Your task to perform on an android device: Go to privacy settings Image 0: 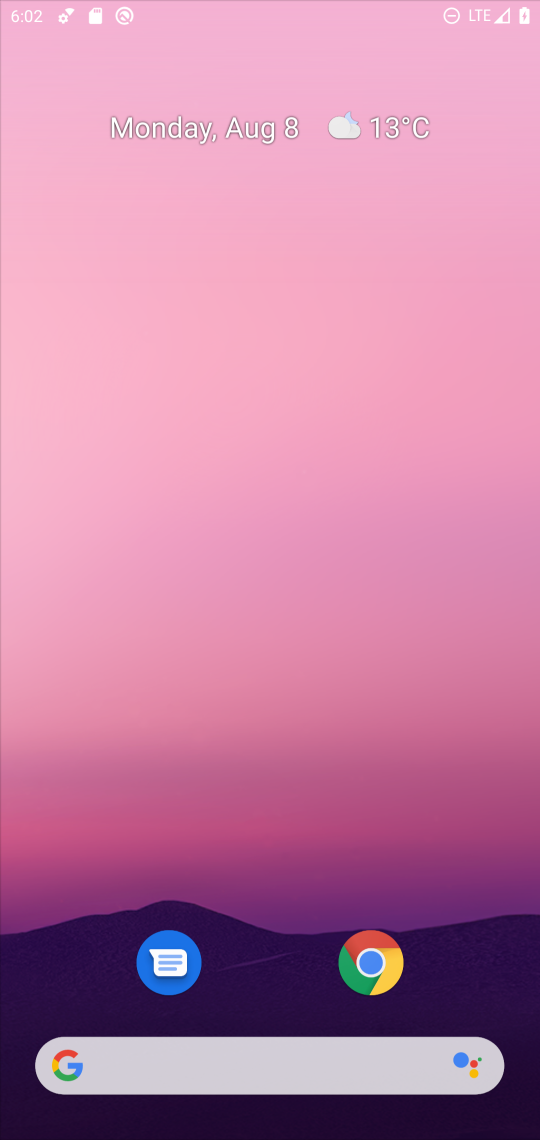
Step 0: press home button
Your task to perform on an android device: Go to privacy settings Image 1: 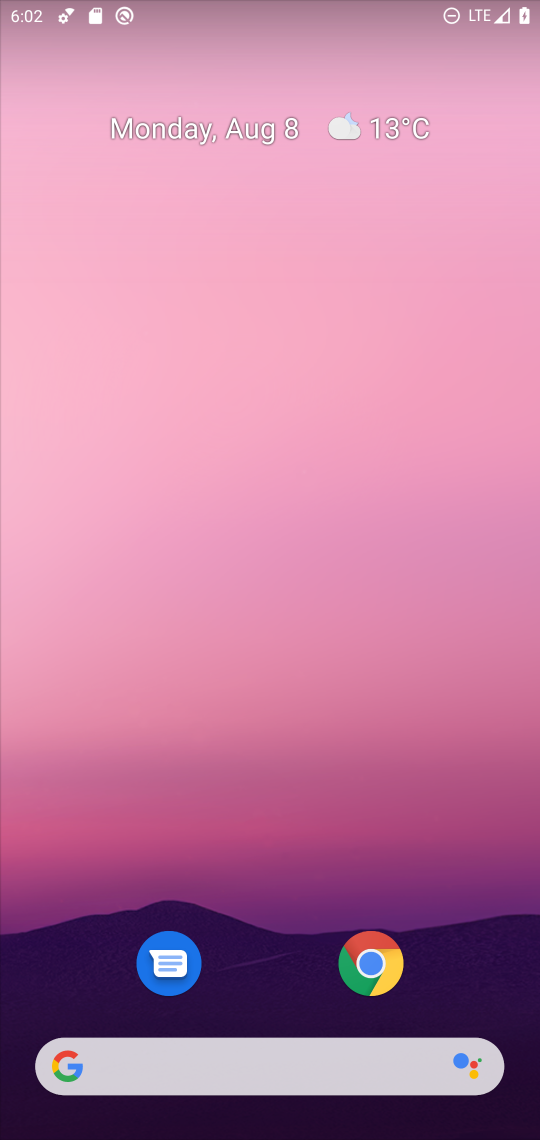
Step 1: drag from (279, 880) to (291, 3)
Your task to perform on an android device: Go to privacy settings Image 2: 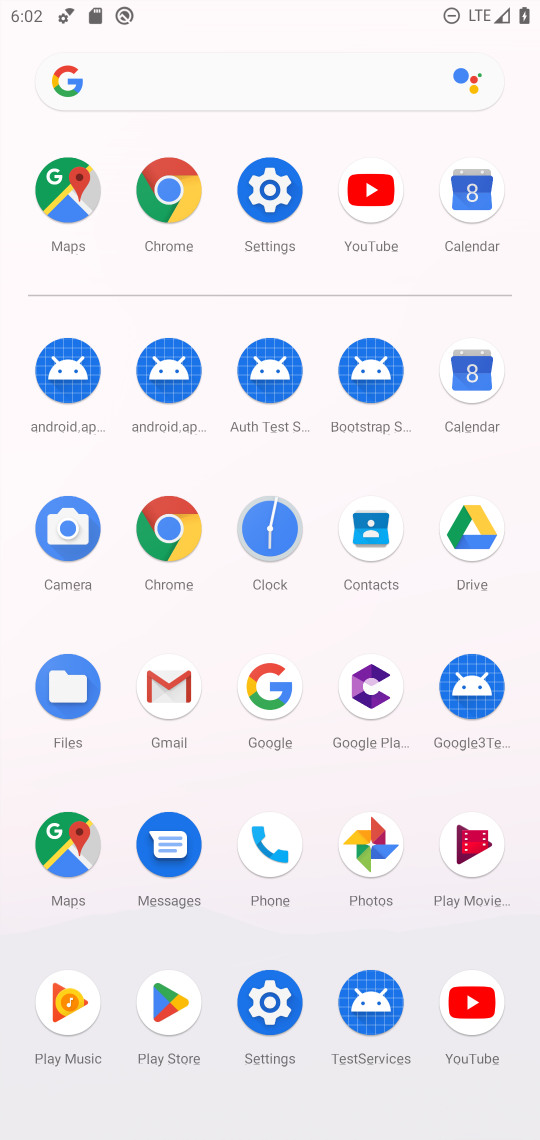
Step 2: click (261, 205)
Your task to perform on an android device: Go to privacy settings Image 3: 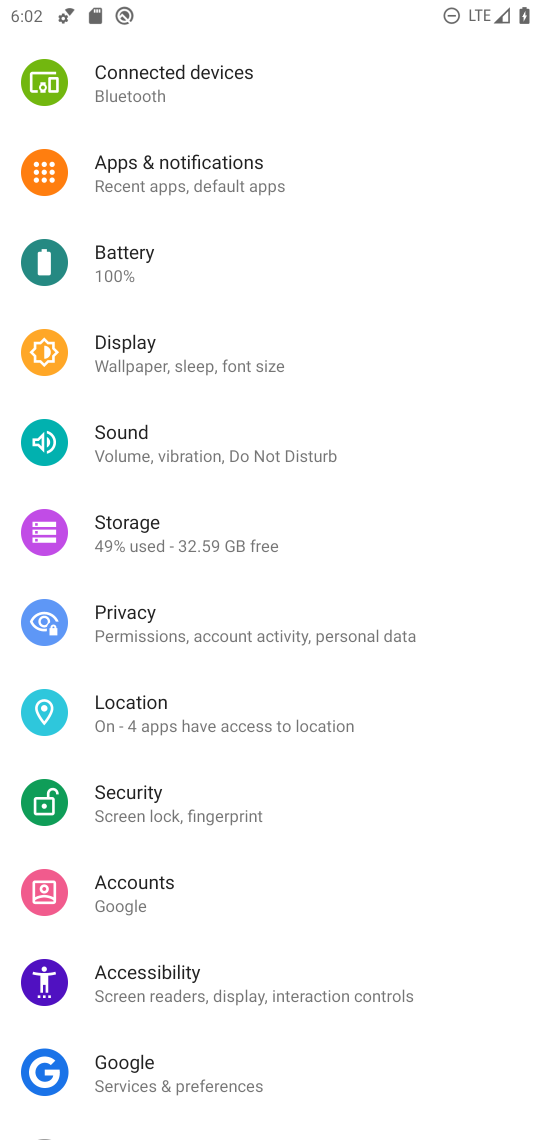
Step 3: click (143, 606)
Your task to perform on an android device: Go to privacy settings Image 4: 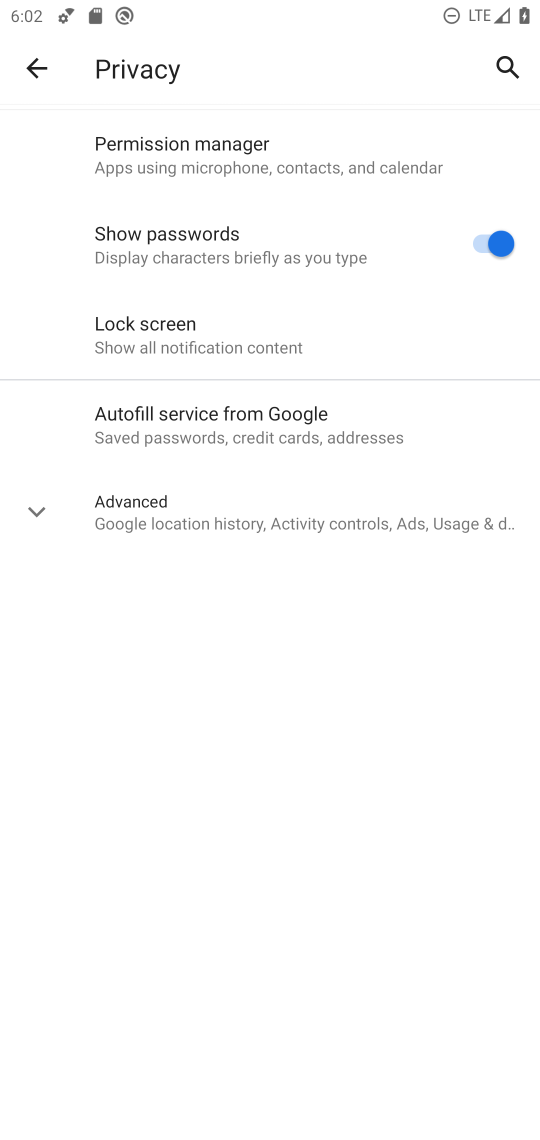
Step 4: task complete